Your task to perform on an android device: Show me the alarms in the clock app Image 0: 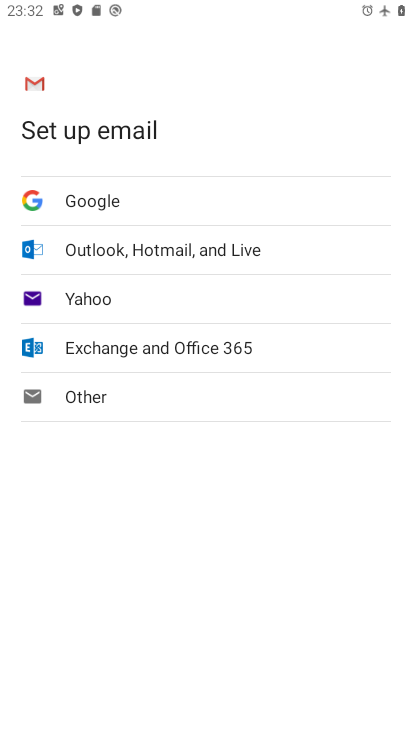
Step 0: press home button
Your task to perform on an android device: Show me the alarms in the clock app Image 1: 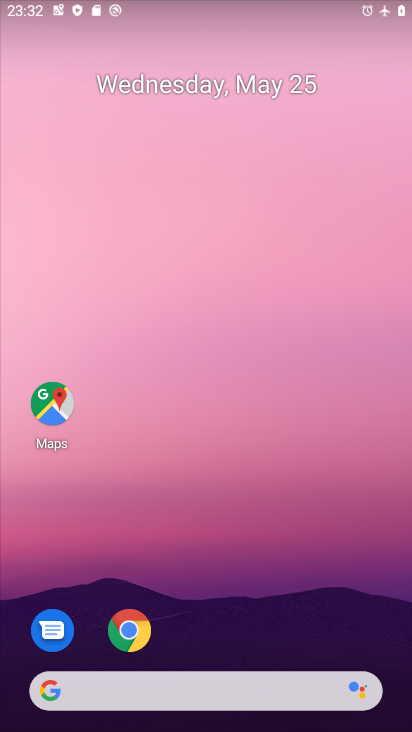
Step 1: drag from (232, 631) to (273, 216)
Your task to perform on an android device: Show me the alarms in the clock app Image 2: 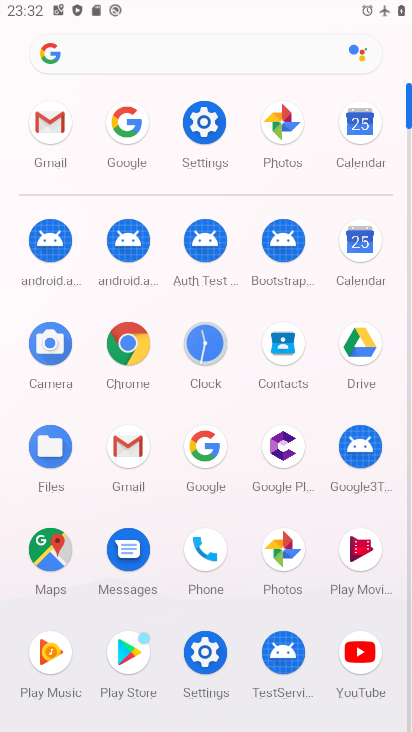
Step 2: click (196, 339)
Your task to perform on an android device: Show me the alarms in the clock app Image 3: 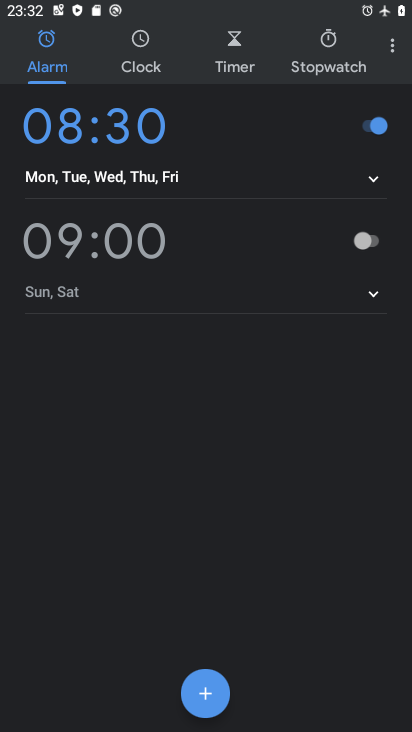
Step 3: task complete